Your task to perform on an android device: Search for pizza restaurants on Maps Image 0: 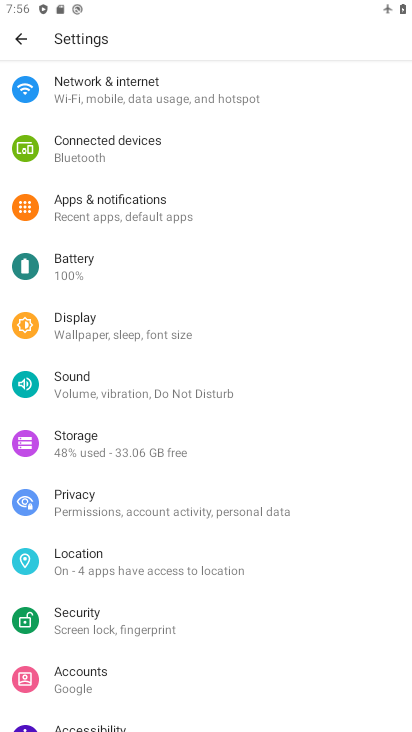
Step 0: press home button
Your task to perform on an android device: Search for pizza restaurants on Maps Image 1: 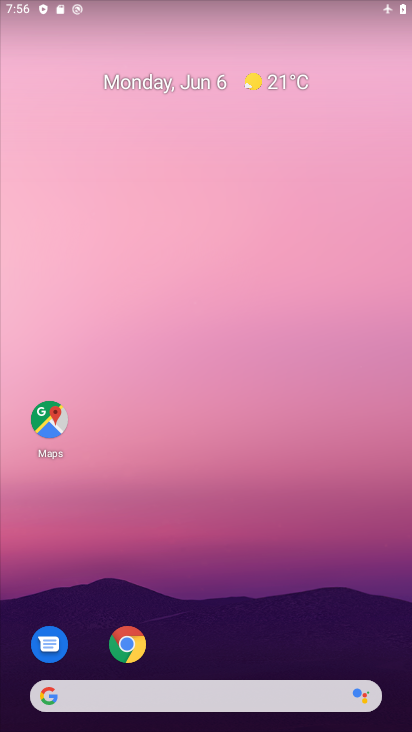
Step 1: click (41, 407)
Your task to perform on an android device: Search for pizza restaurants on Maps Image 2: 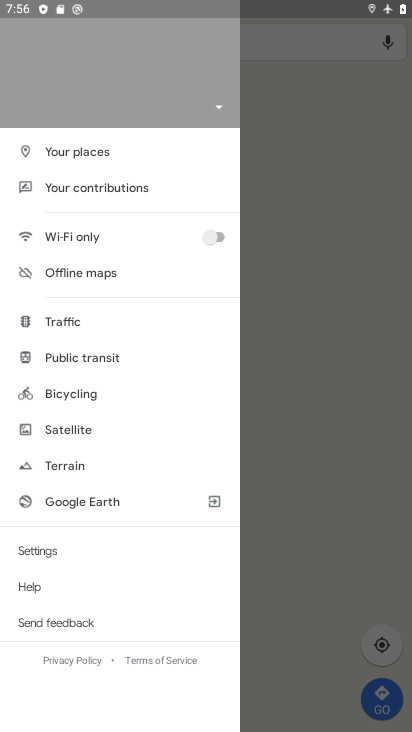
Step 2: click (285, 206)
Your task to perform on an android device: Search for pizza restaurants on Maps Image 3: 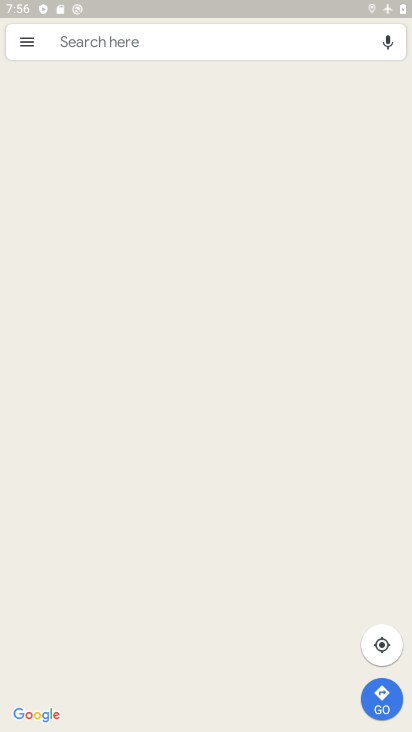
Step 3: click (311, 53)
Your task to perform on an android device: Search for pizza restaurants on Maps Image 4: 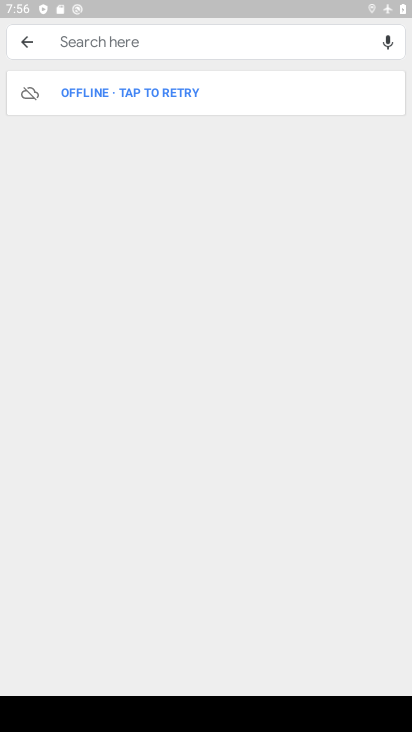
Step 4: type "pizza"
Your task to perform on an android device: Search for pizza restaurants on Maps Image 5: 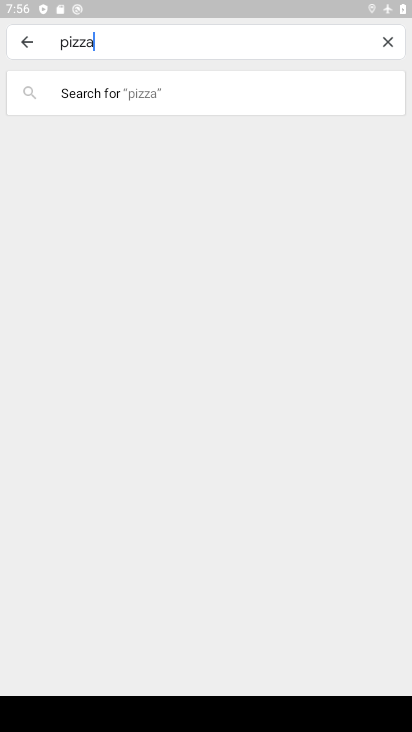
Step 5: task complete